Your task to perform on an android device: refresh tabs in the chrome app Image 0: 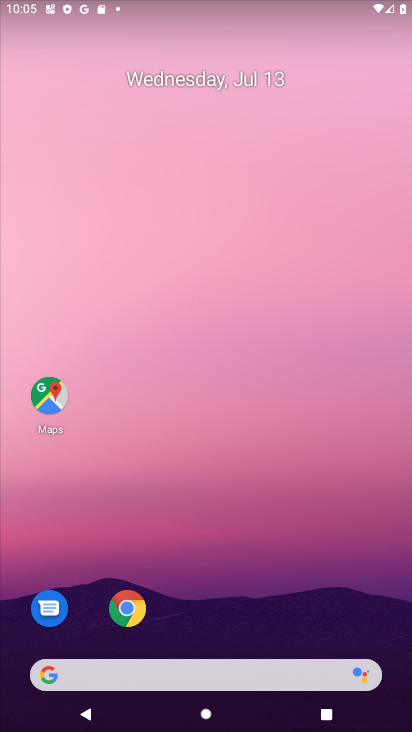
Step 0: click (127, 608)
Your task to perform on an android device: refresh tabs in the chrome app Image 1: 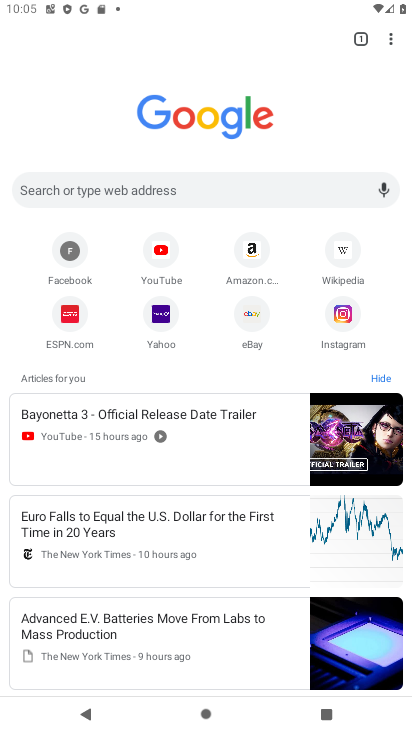
Step 1: click (390, 40)
Your task to perform on an android device: refresh tabs in the chrome app Image 2: 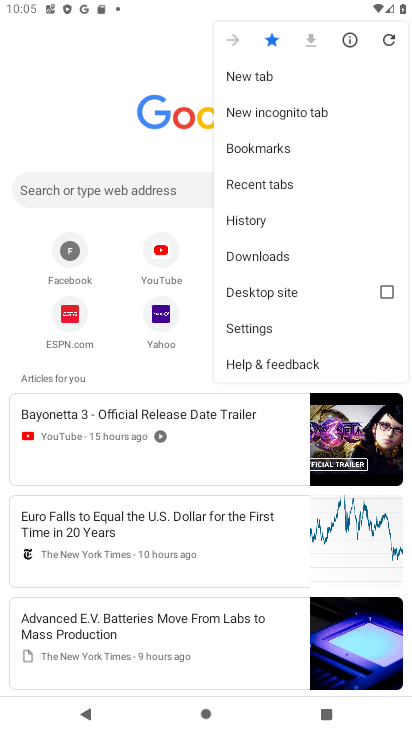
Step 2: click (385, 40)
Your task to perform on an android device: refresh tabs in the chrome app Image 3: 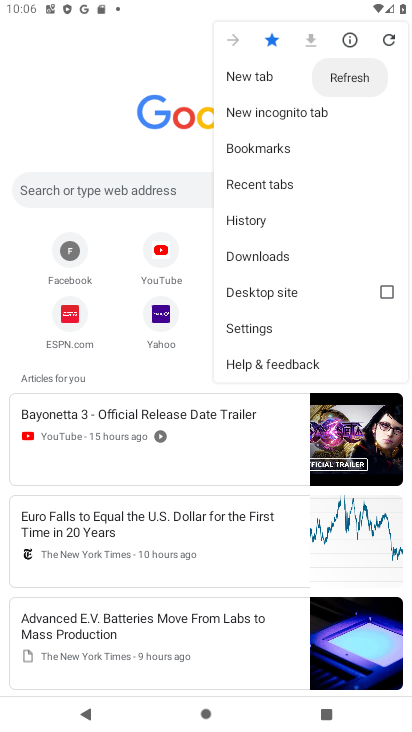
Step 3: click (385, 40)
Your task to perform on an android device: refresh tabs in the chrome app Image 4: 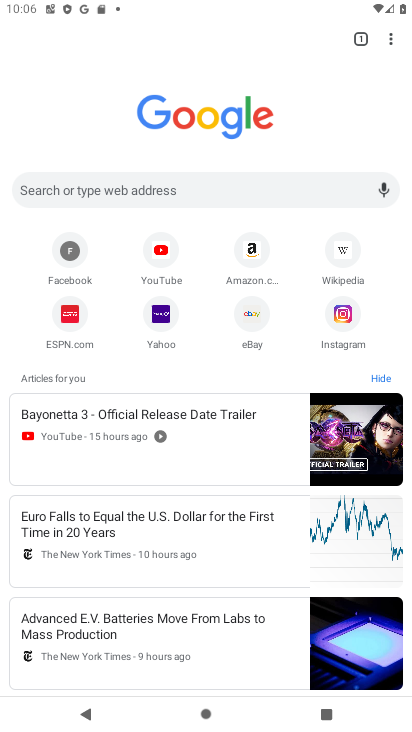
Step 4: task complete